Your task to perform on an android device: open a bookmark in the chrome app Image 0: 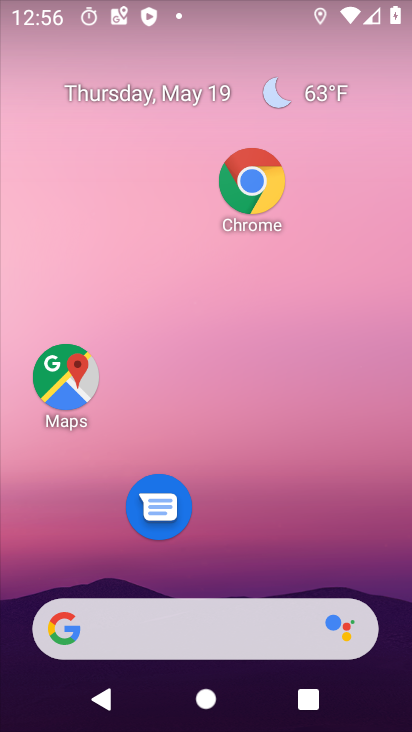
Step 0: click (259, 204)
Your task to perform on an android device: open a bookmark in the chrome app Image 1: 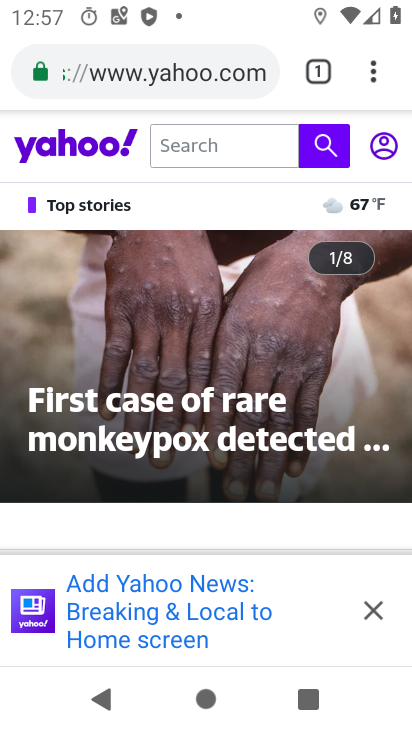
Step 1: click (371, 76)
Your task to perform on an android device: open a bookmark in the chrome app Image 2: 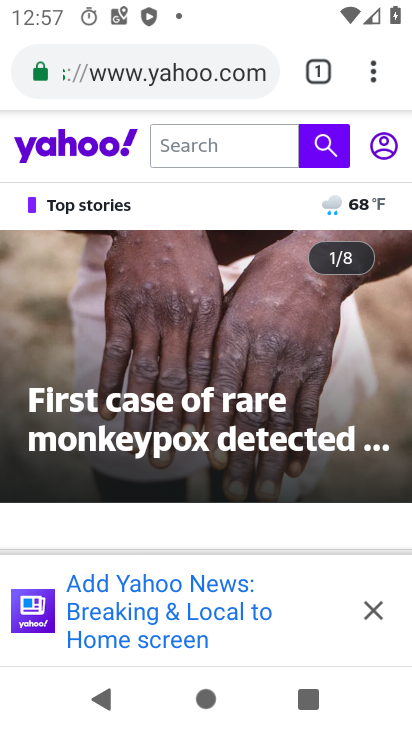
Step 2: click (372, 78)
Your task to perform on an android device: open a bookmark in the chrome app Image 3: 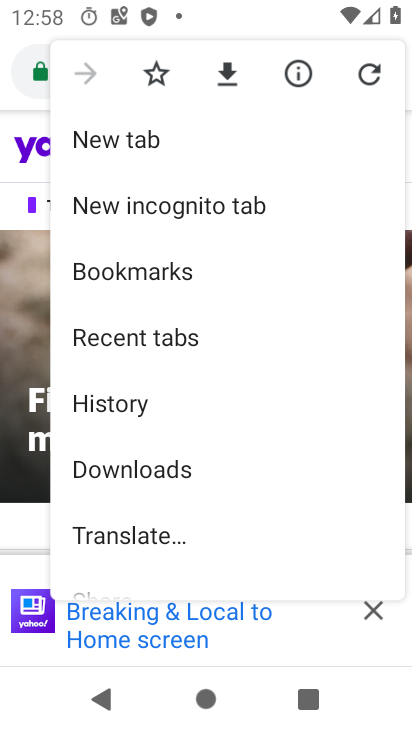
Step 3: click (147, 282)
Your task to perform on an android device: open a bookmark in the chrome app Image 4: 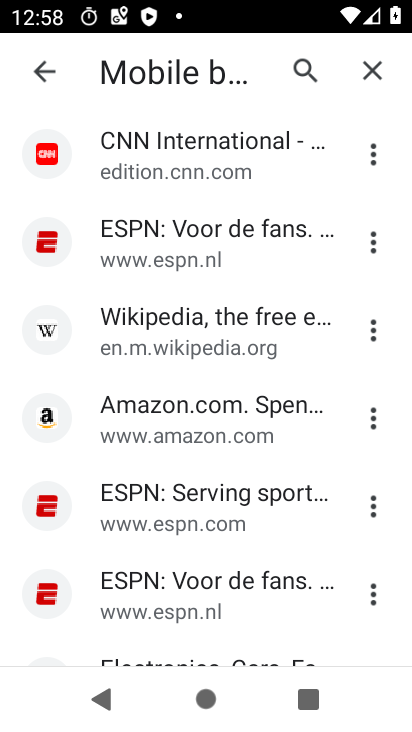
Step 4: click (214, 333)
Your task to perform on an android device: open a bookmark in the chrome app Image 5: 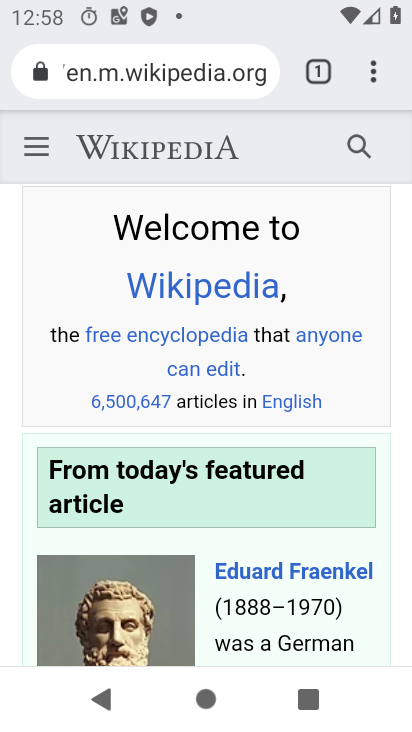
Step 5: task complete